Your task to perform on an android device: see creations saved in the google photos Image 0: 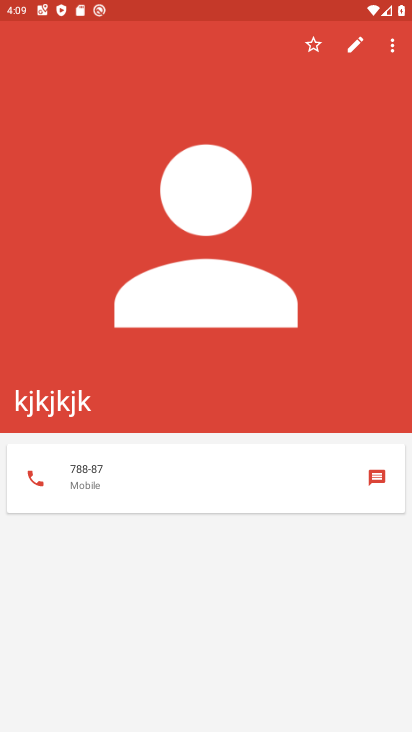
Step 0: press home button
Your task to perform on an android device: see creations saved in the google photos Image 1: 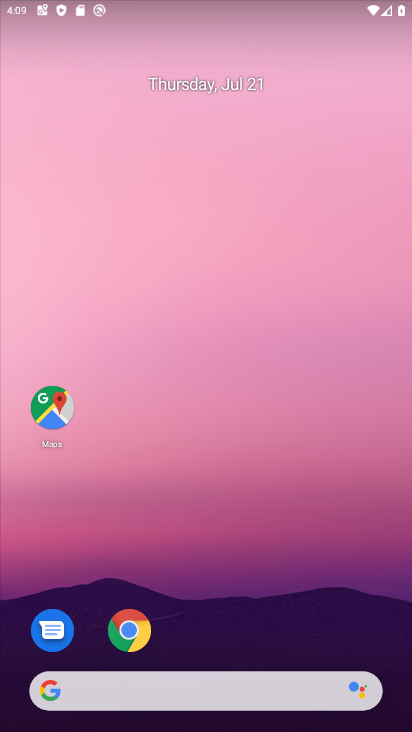
Step 1: drag from (94, 566) to (360, 160)
Your task to perform on an android device: see creations saved in the google photos Image 2: 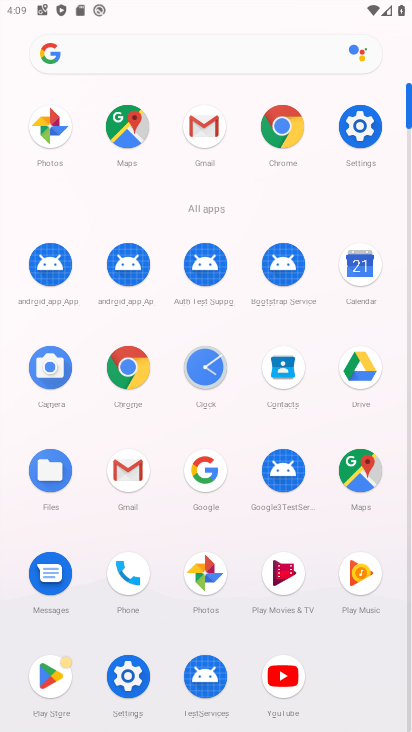
Step 2: click (183, 574)
Your task to perform on an android device: see creations saved in the google photos Image 3: 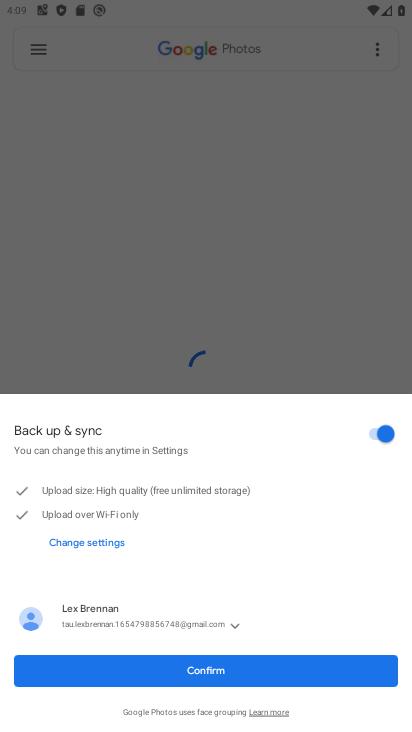
Step 3: click (197, 672)
Your task to perform on an android device: see creations saved in the google photos Image 4: 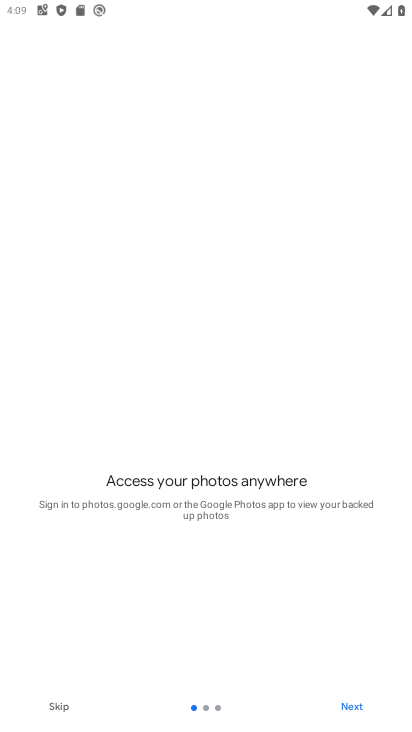
Step 4: click (354, 699)
Your task to perform on an android device: see creations saved in the google photos Image 5: 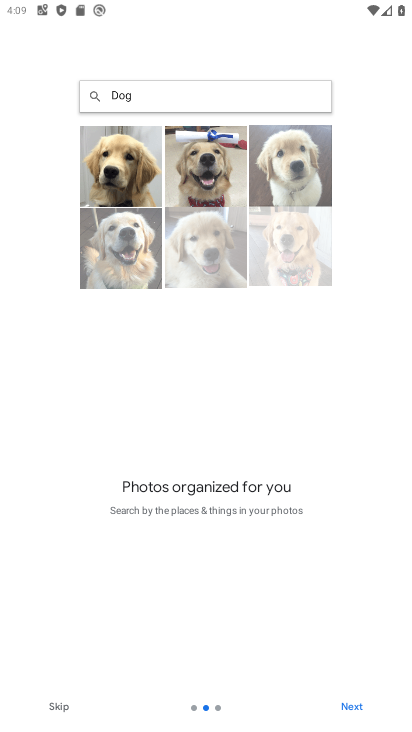
Step 5: click (348, 700)
Your task to perform on an android device: see creations saved in the google photos Image 6: 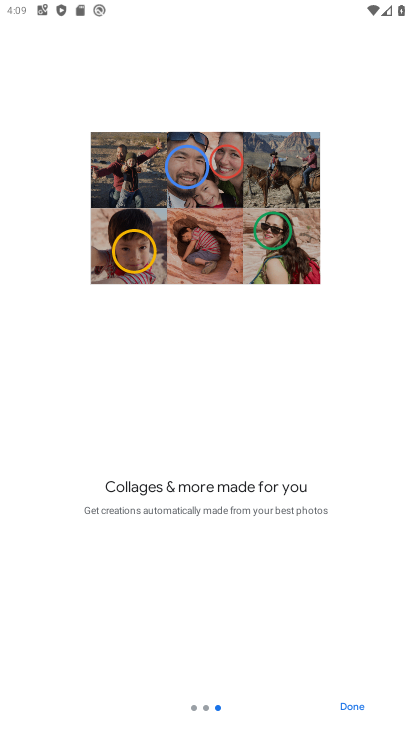
Step 6: click (361, 681)
Your task to perform on an android device: see creations saved in the google photos Image 7: 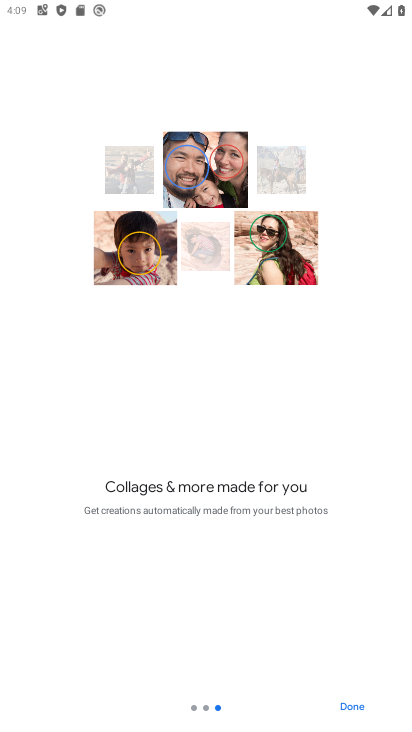
Step 7: click (343, 715)
Your task to perform on an android device: see creations saved in the google photos Image 8: 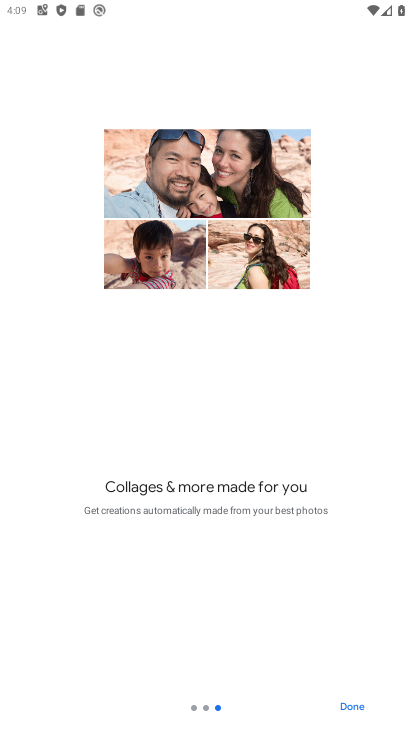
Step 8: click (348, 694)
Your task to perform on an android device: see creations saved in the google photos Image 9: 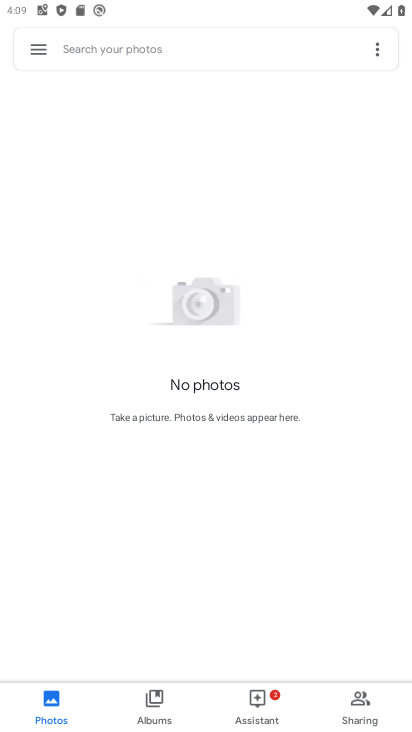
Step 9: task complete